Your task to perform on an android device: open chrome and create a bookmark for the current page Image 0: 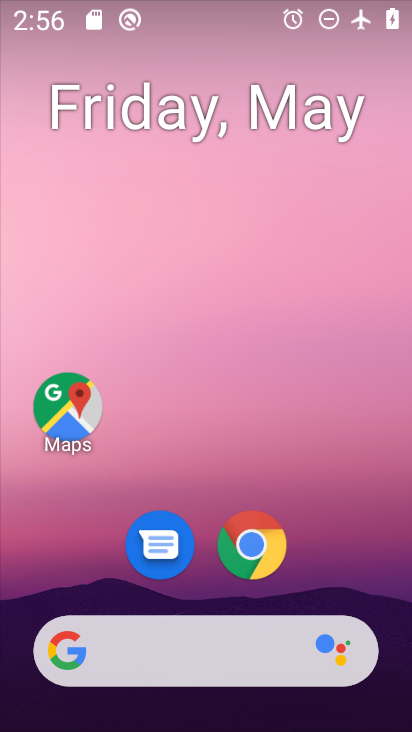
Step 0: drag from (338, 588) to (338, 323)
Your task to perform on an android device: open chrome and create a bookmark for the current page Image 1: 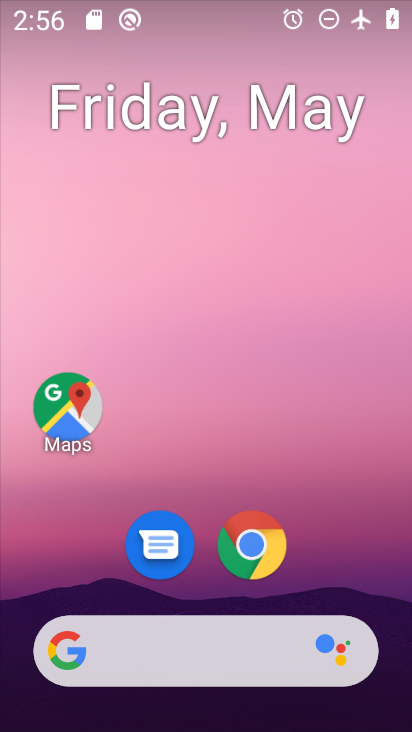
Step 1: click (259, 540)
Your task to perform on an android device: open chrome and create a bookmark for the current page Image 2: 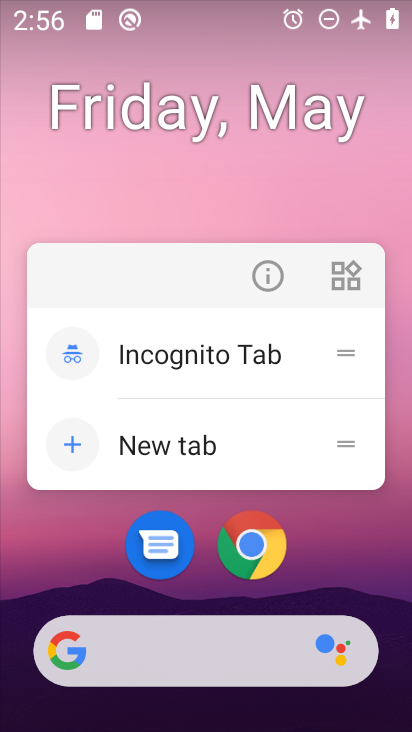
Step 2: click (249, 545)
Your task to perform on an android device: open chrome and create a bookmark for the current page Image 3: 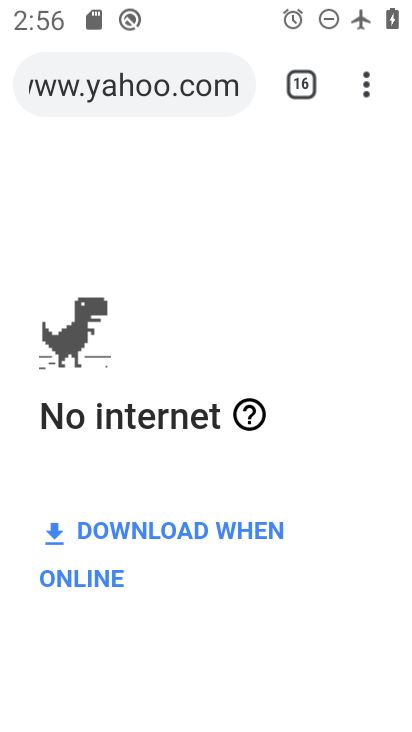
Step 3: click (354, 79)
Your task to perform on an android device: open chrome and create a bookmark for the current page Image 4: 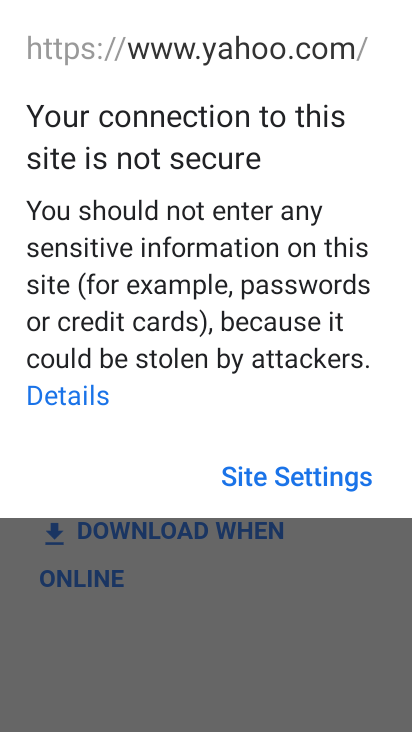
Step 4: press back button
Your task to perform on an android device: open chrome and create a bookmark for the current page Image 5: 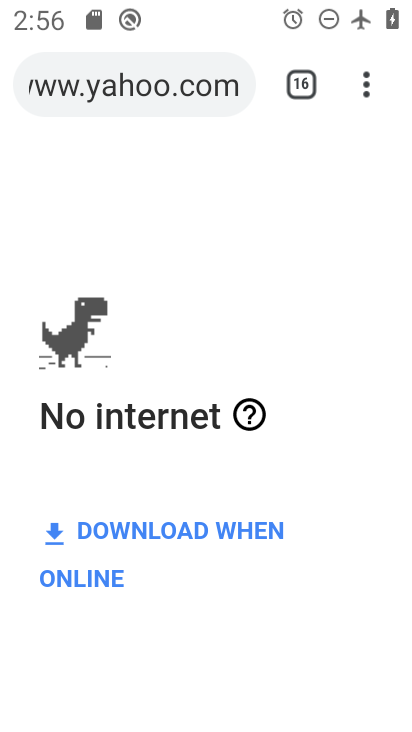
Step 5: click (350, 78)
Your task to perform on an android device: open chrome and create a bookmark for the current page Image 6: 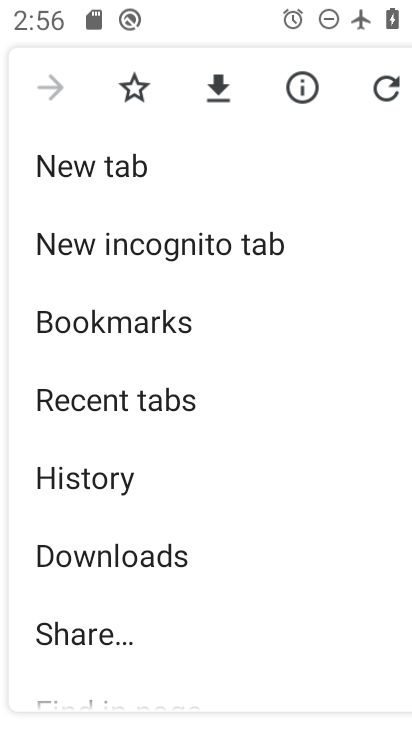
Step 6: click (133, 87)
Your task to perform on an android device: open chrome and create a bookmark for the current page Image 7: 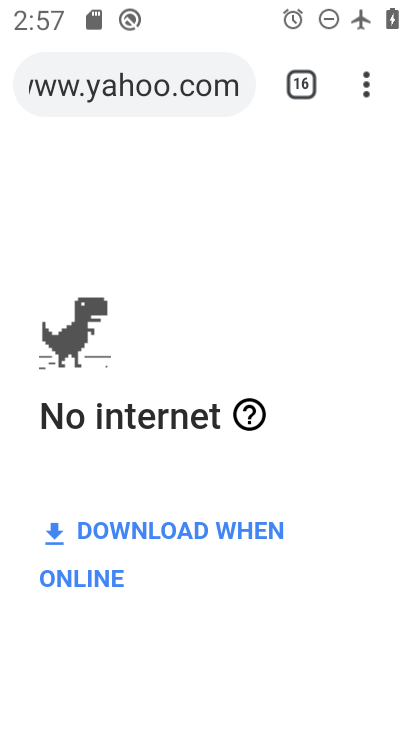
Step 7: task complete